Your task to perform on an android device: Do I have any events tomorrow? Image 0: 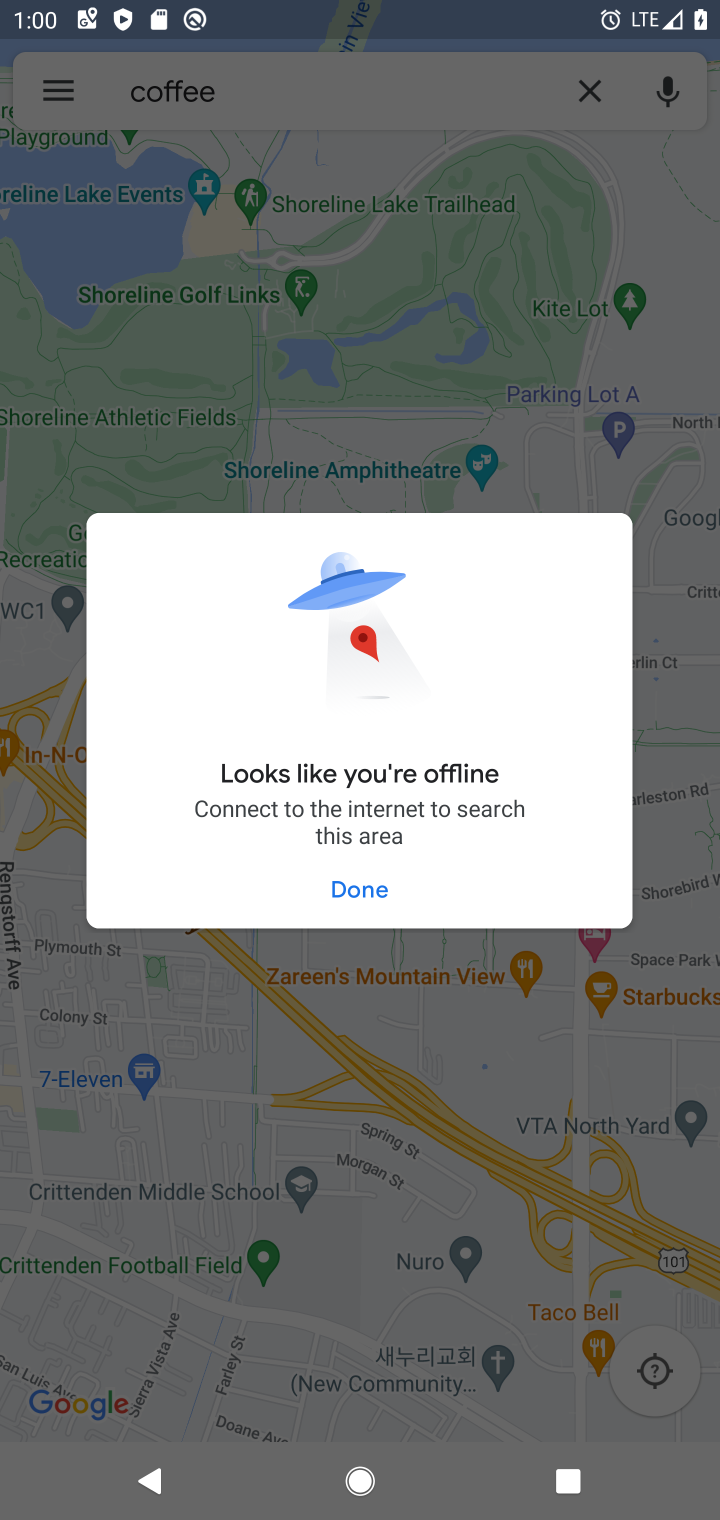
Step 0: press home button
Your task to perform on an android device: Do I have any events tomorrow? Image 1: 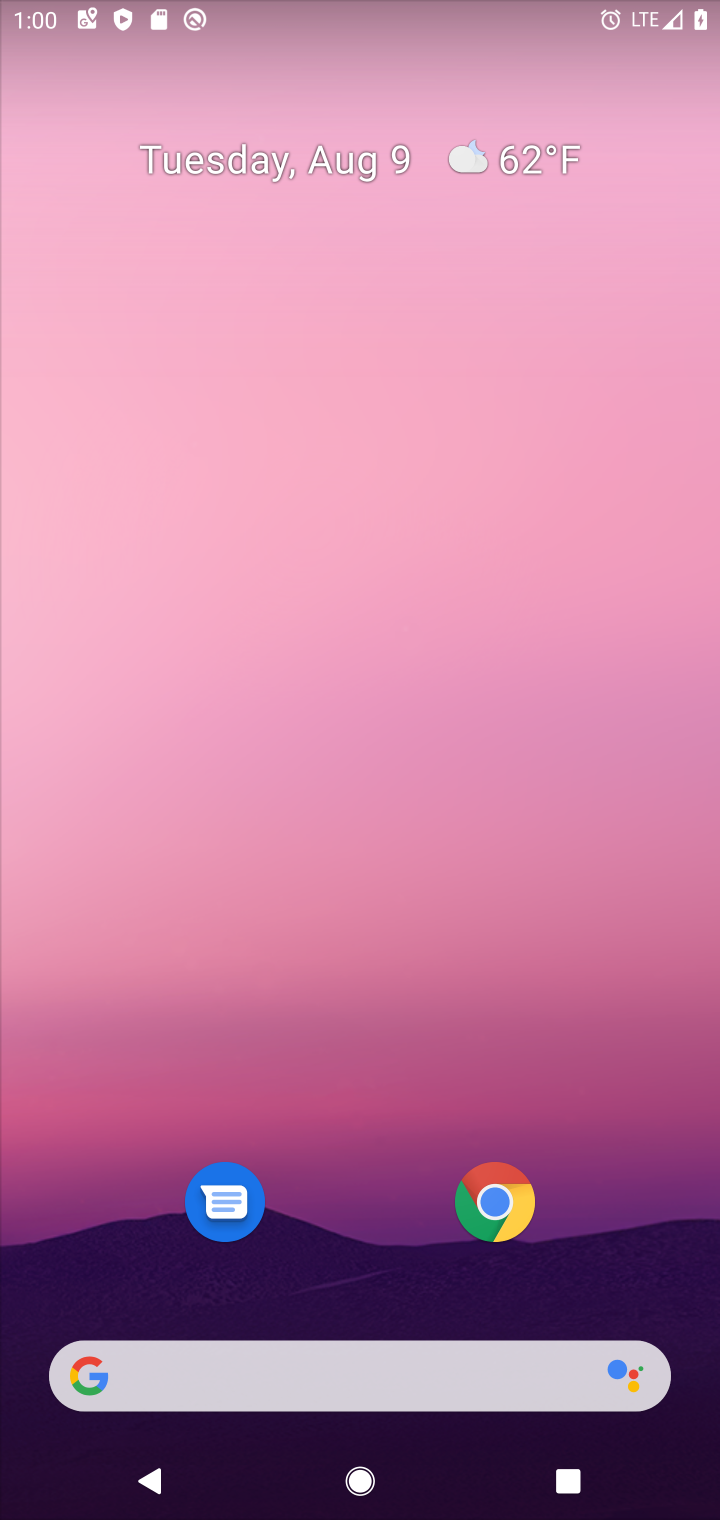
Step 1: drag from (357, 1186) to (291, 271)
Your task to perform on an android device: Do I have any events tomorrow? Image 2: 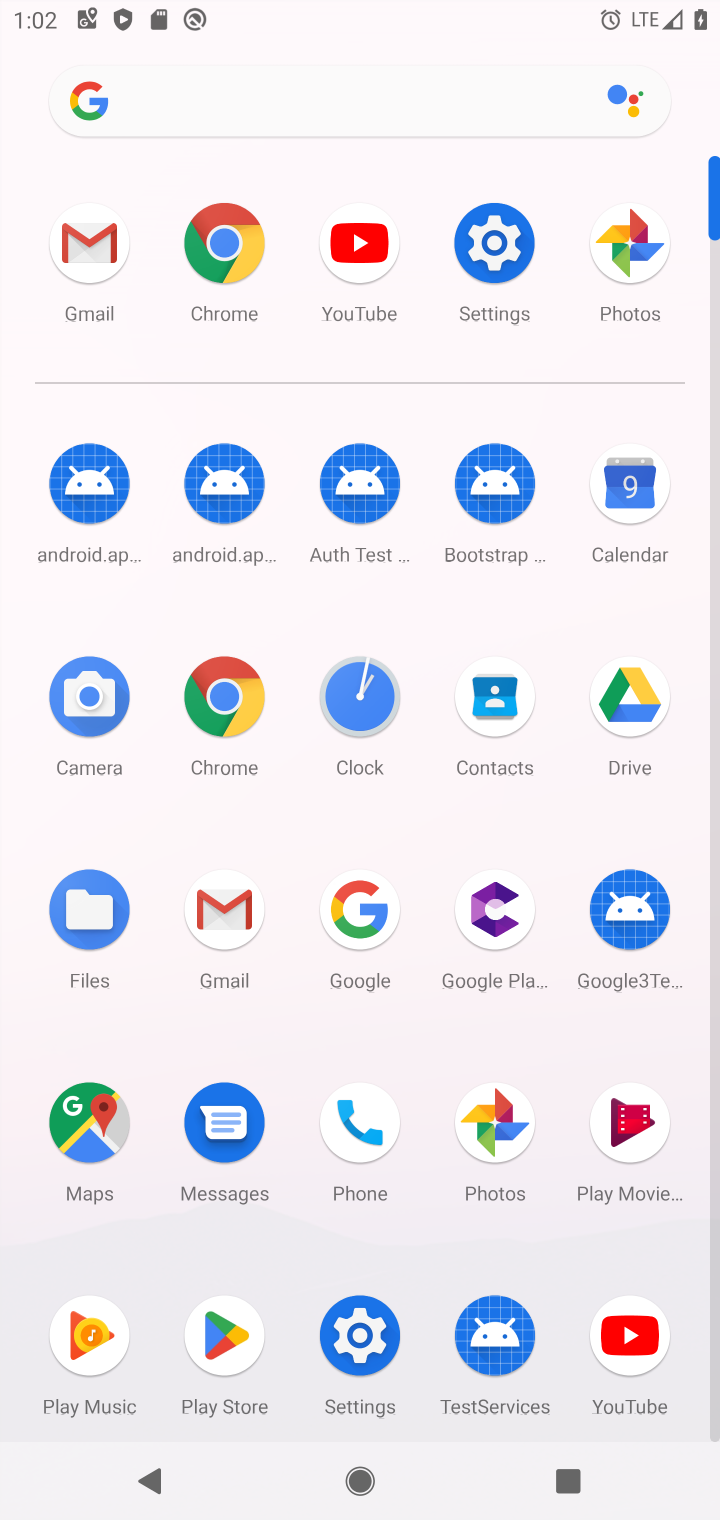
Step 2: click (603, 531)
Your task to perform on an android device: Do I have any events tomorrow? Image 3: 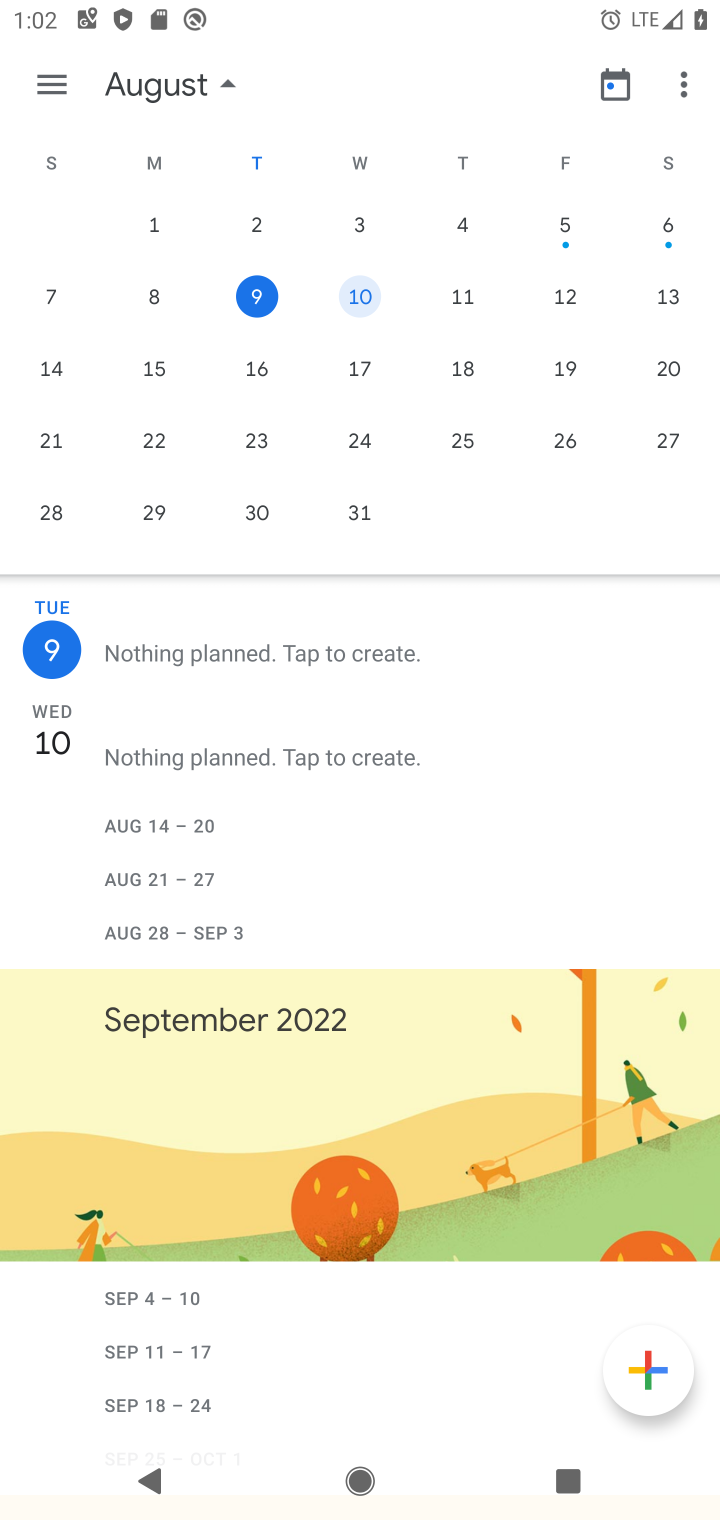
Step 3: click (365, 290)
Your task to perform on an android device: Do I have any events tomorrow? Image 4: 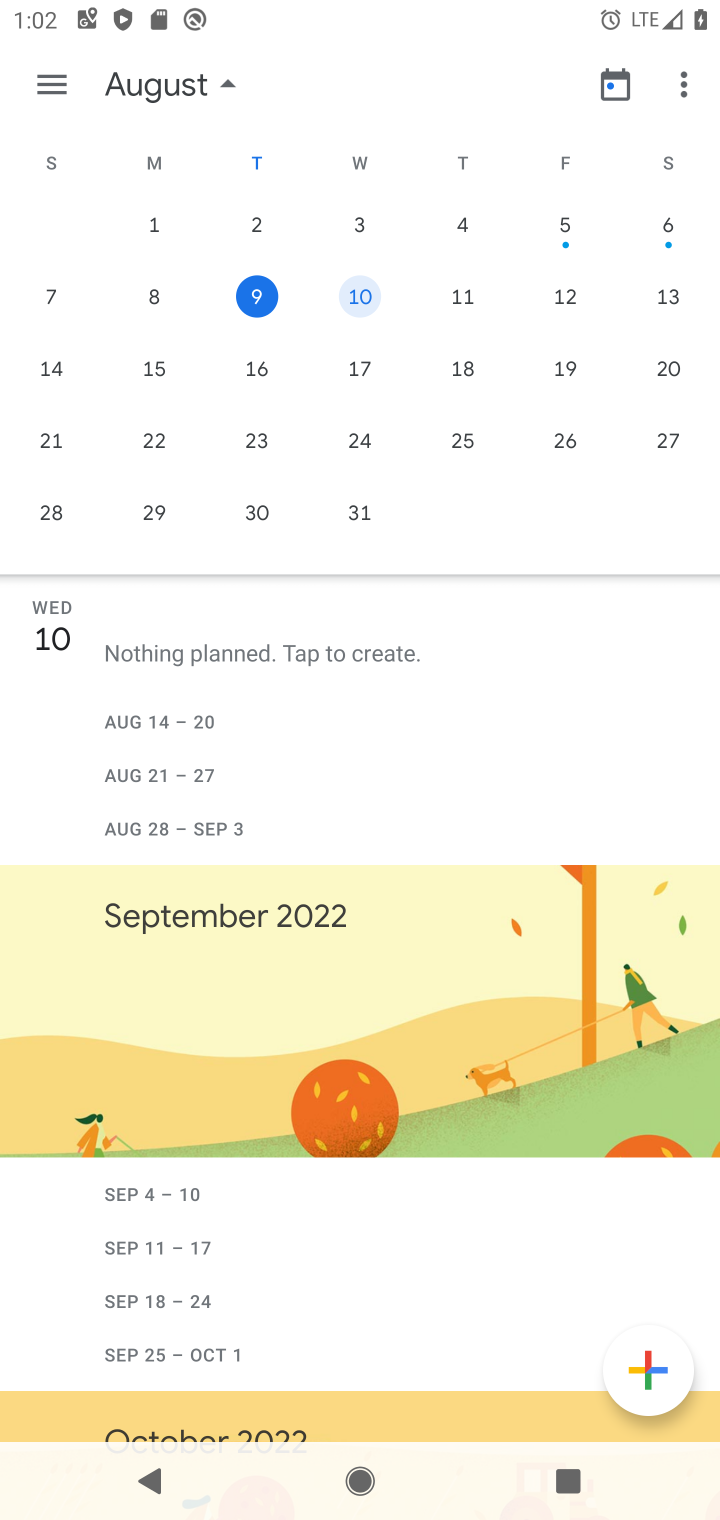
Step 4: task complete